Your task to perform on an android device: turn off wifi Image 0: 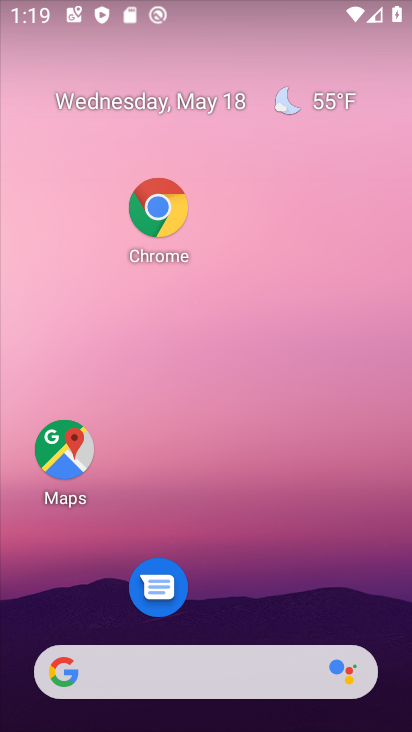
Step 0: drag from (237, 244) to (265, 0)
Your task to perform on an android device: turn off wifi Image 1: 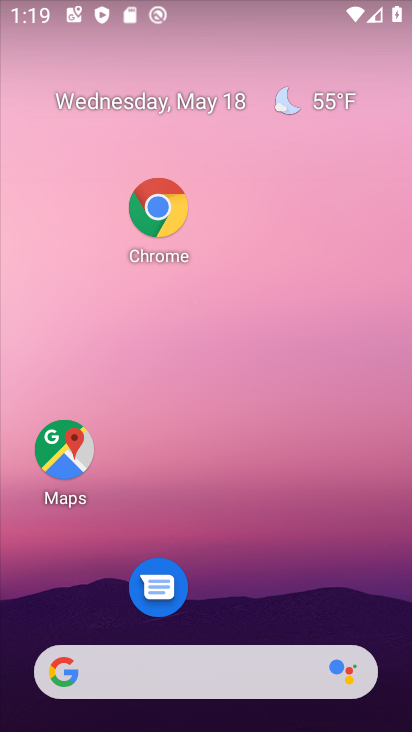
Step 1: drag from (256, 597) to (234, 79)
Your task to perform on an android device: turn off wifi Image 2: 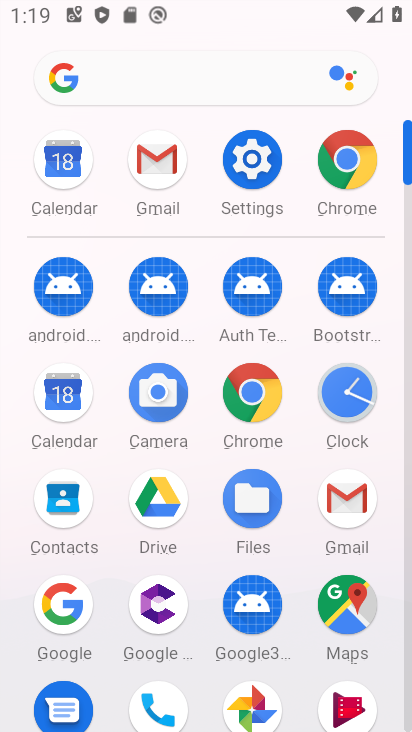
Step 2: click (252, 170)
Your task to perform on an android device: turn off wifi Image 3: 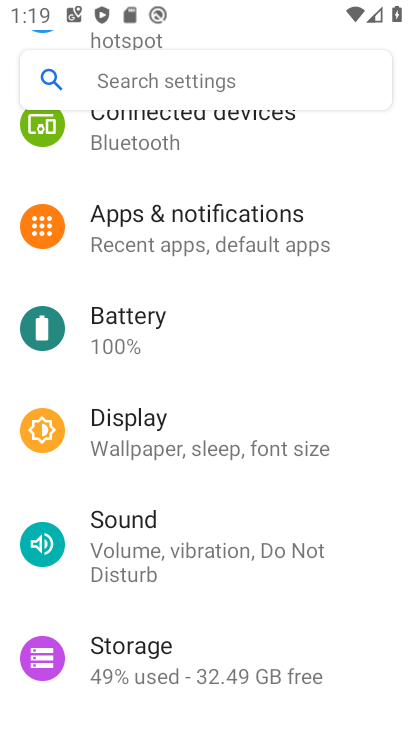
Step 3: drag from (245, 240) to (241, 489)
Your task to perform on an android device: turn off wifi Image 4: 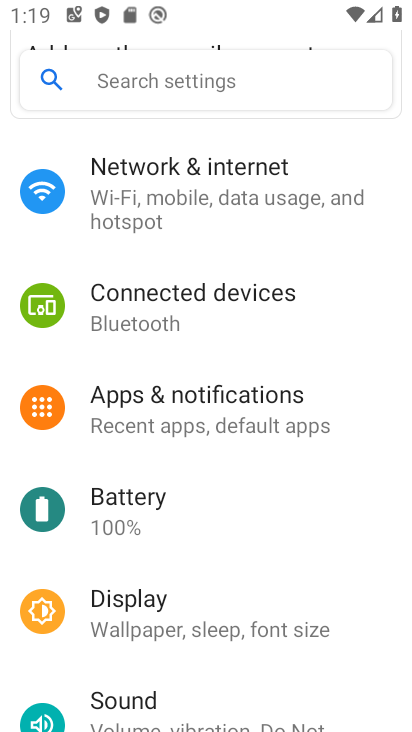
Step 4: click (122, 194)
Your task to perform on an android device: turn off wifi Image 5: 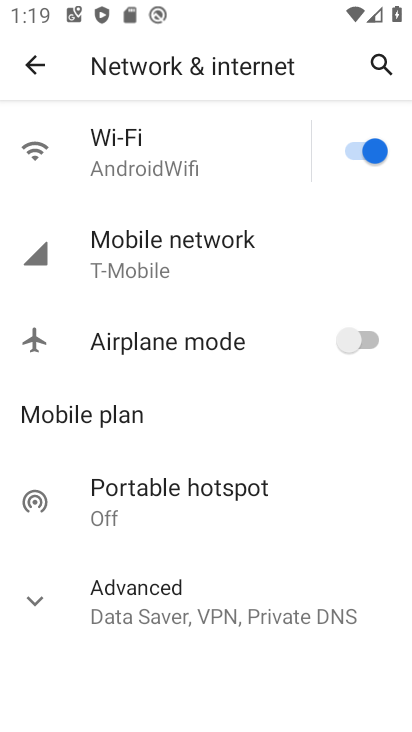
Step 5: click (356, 158)
Your task to perform on an android device: turn off wifi Image 6: 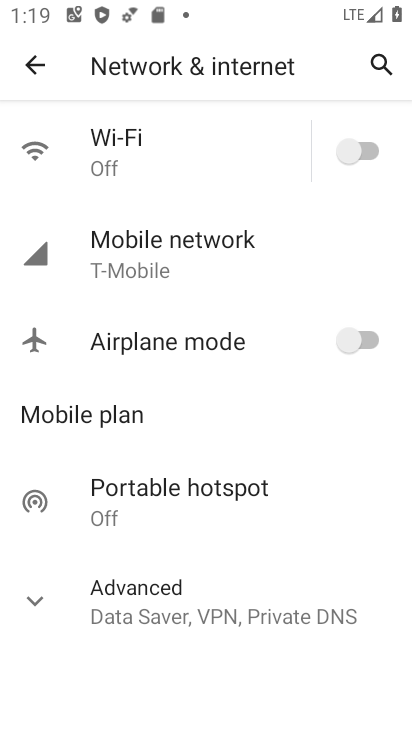
Step 6: task complete